Your task to perform on an android device: move a message to another label in the gmail app Image 0: 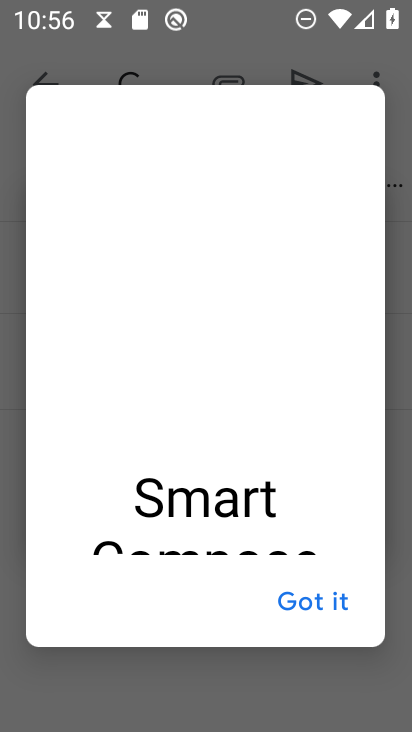
Step 0: press home button
Your task to perform on an android device: move a message to another label in the gmail app Image 1: 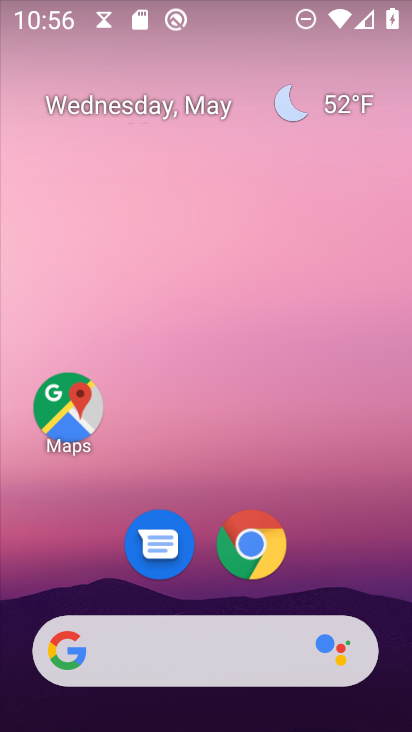
Step 1: drag from (192, 565) to (210, 57)
Your task to perform on an android device: move a message to another label in the gmail app Image 2: 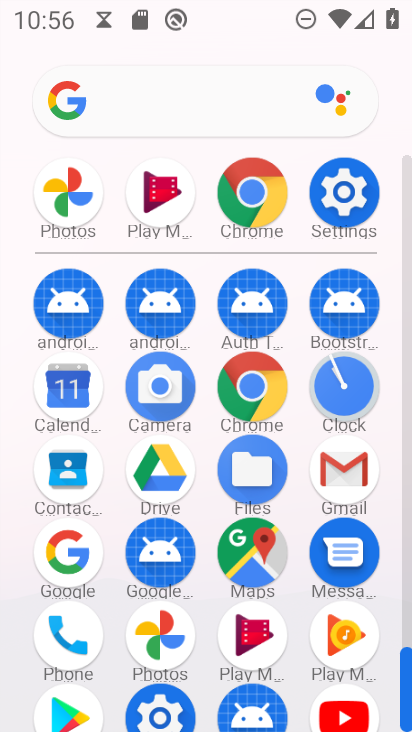
Step 2: click (333, 477)
Your task to perform on an android device: move a message to another label in the gmail app Image 3: 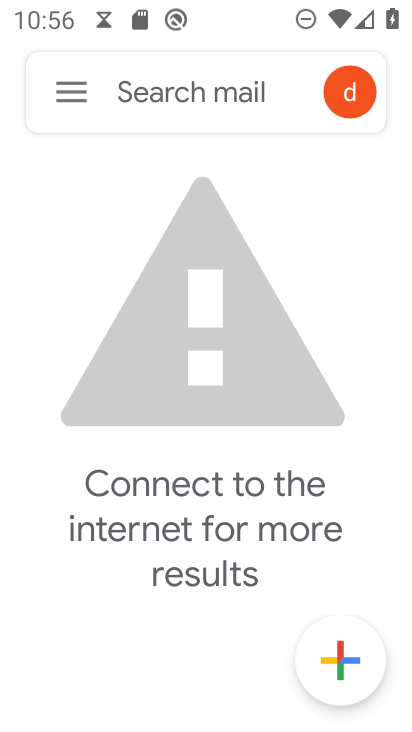
Step 3: click (78, 111)
Your task to perform on an android device: move a message to another label in the gmail app Image 4: 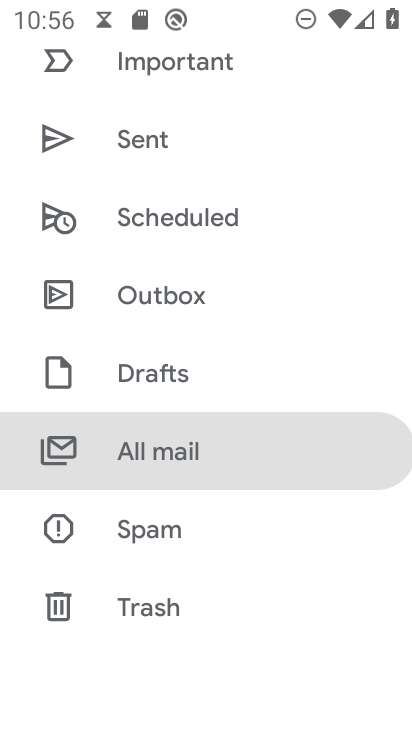
Step 4: drag from (184, 144) to (251, 586)
Your task to perform on an android device: move a message to another label in the gmail app Image 5: 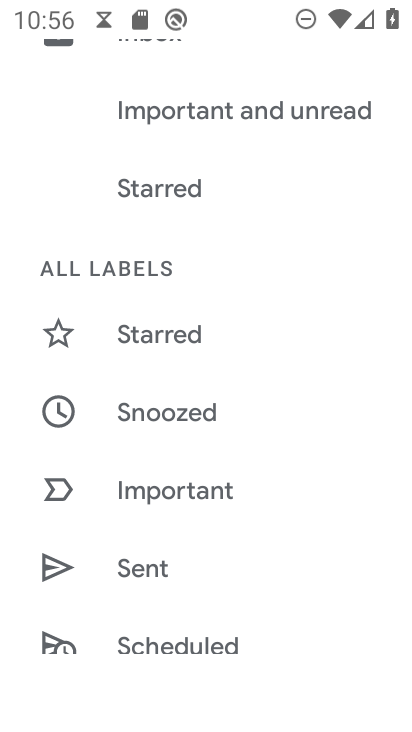
Step 5: drag from (186, 279) to (238, 668)
Your task to perform on an android device: move a message to another label in the gmail app Image 6: 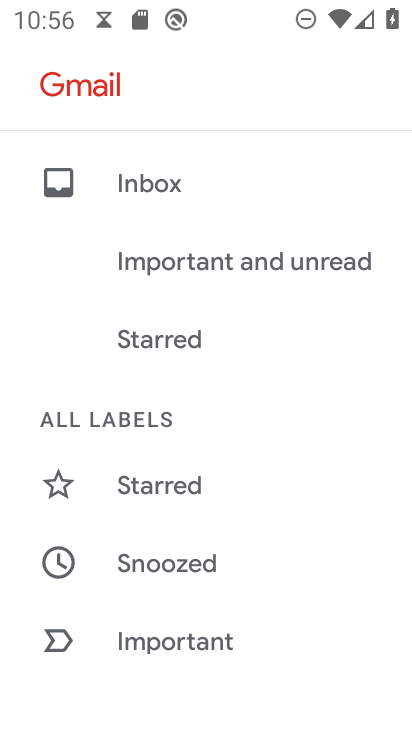
Step 6: click (181, 194)
Your task to perform on an android device: move a message to another label in the gmail app Image 7: 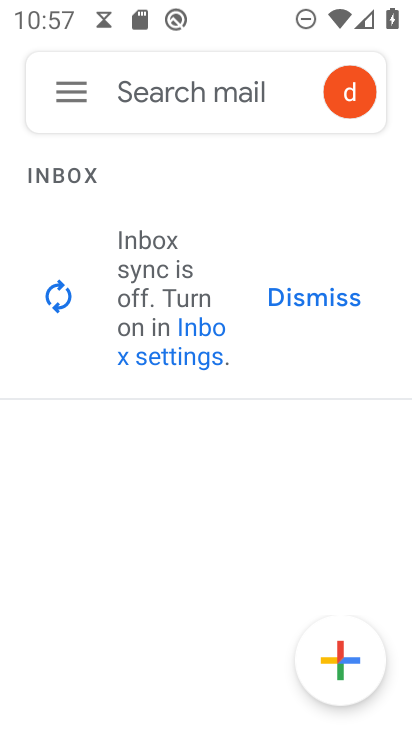
Step 7: task complete